Your task to perform on an android device: Show me productivity apps on the Play Store Image 0: 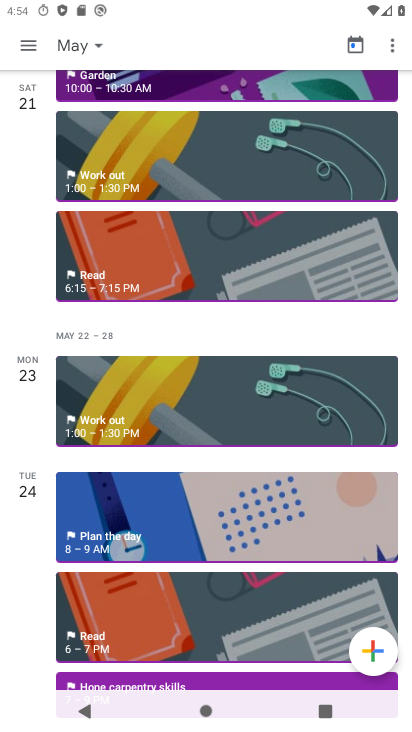
Step 0: press home button
Your task to perform on an android device: Show me productivity apps on the Play Store Image 1: 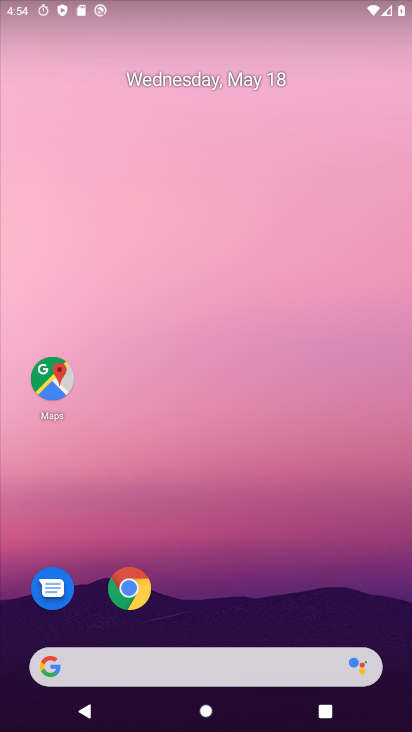
Step 1: drag from (261, 597) to (263, 94)
Your task to perform on an android device: Show me productivity apps on the Play Store Image 2: 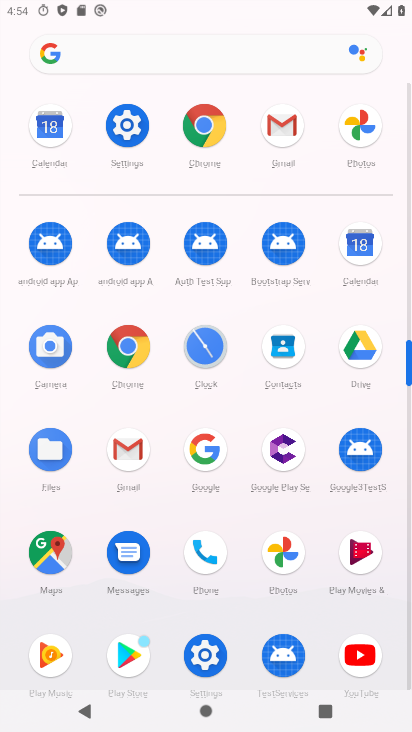
Step 2: click (134, 657)
Your task to perform on an android device: Show me productivity apps on the Play Store Image 3: 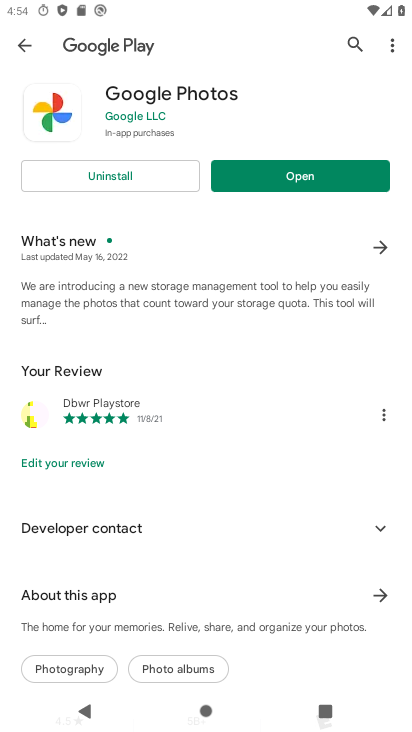
Step 3: click (23, 47)
Your task to perform on an android device: Show me productivity apps on the Play Store Image 4: 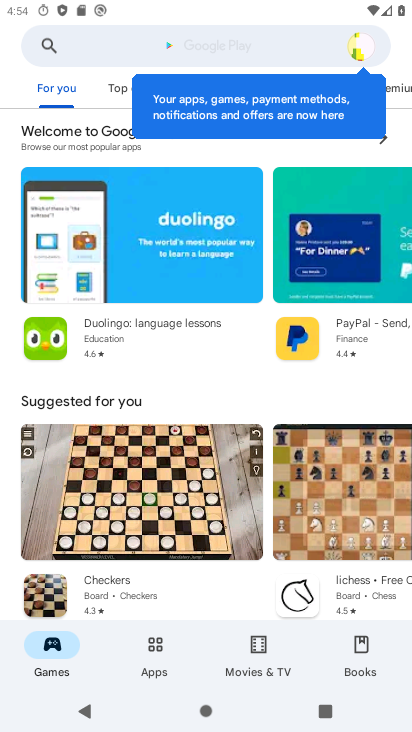
Step 4: click (74, 49)
Your task to perform on an android device: Show me productivity apps on the Play Store Image 5: 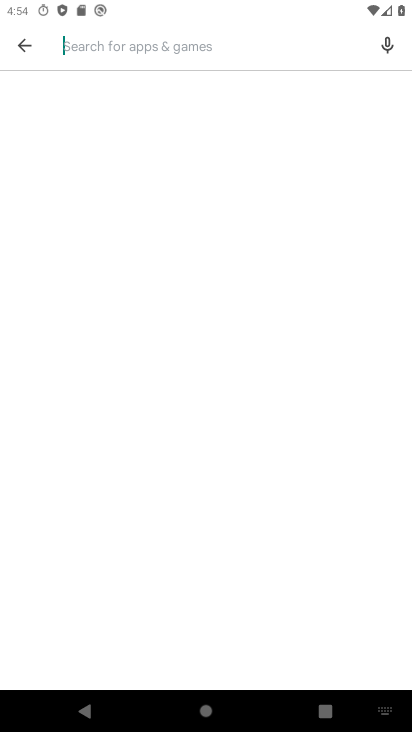
Step 5: type " productivity apps"
Your task to perform on an android device: Show me productivity apps on the Play Store Image 6: 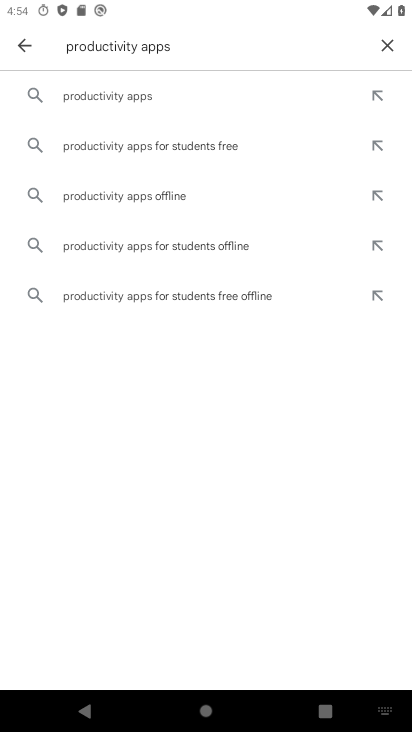
Step 6: click (108, 93)
Your task to perform on an android device: Show me productivity apps on the Play Store Image 7: 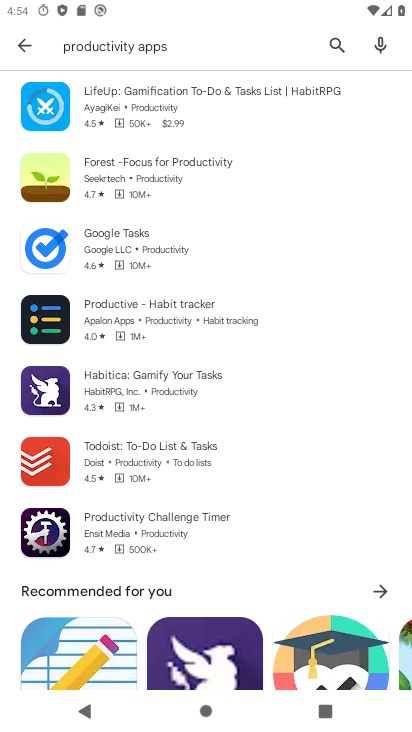
Step 7: task complete